Your task to perform on an android device: Go to Yahoo.com Image 0: 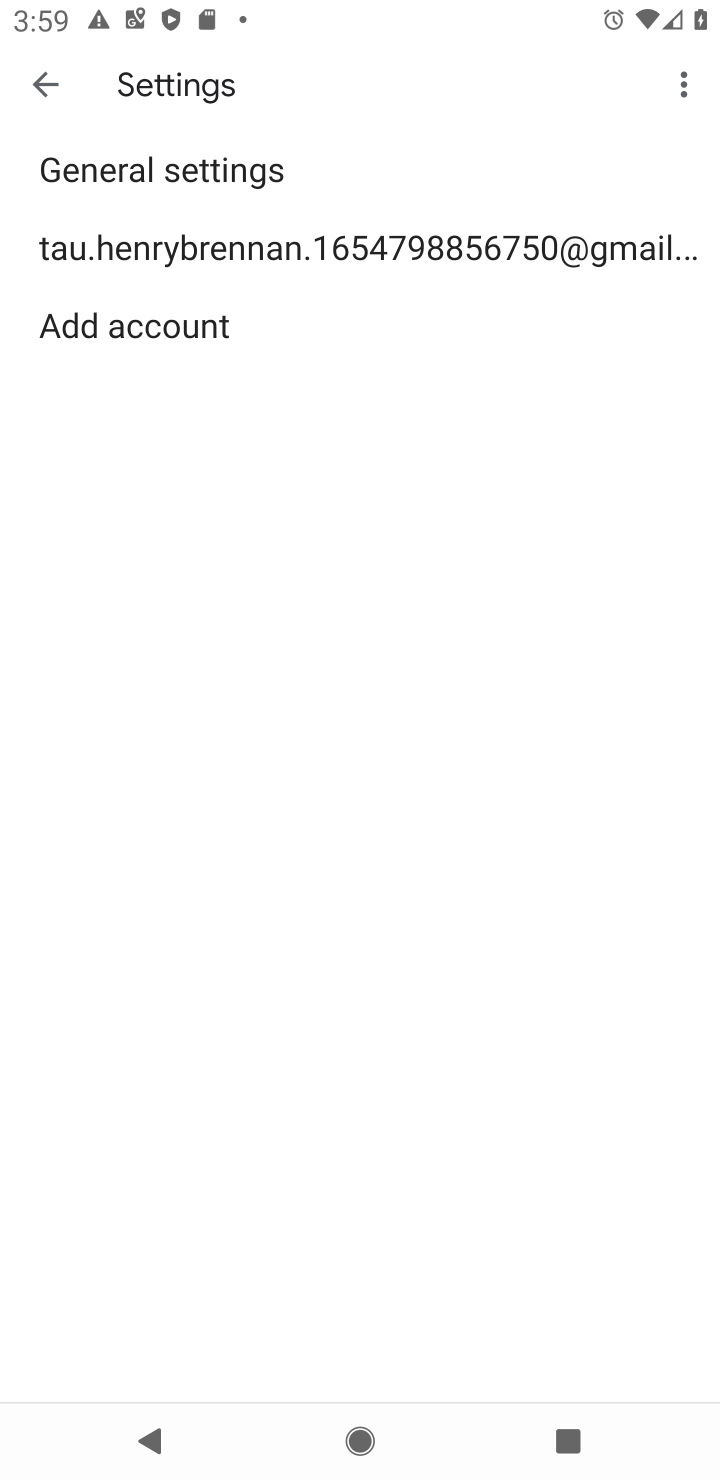
Step 0: press home button
Your task to perform on an android device: Go to Yahoo.com Image 1: 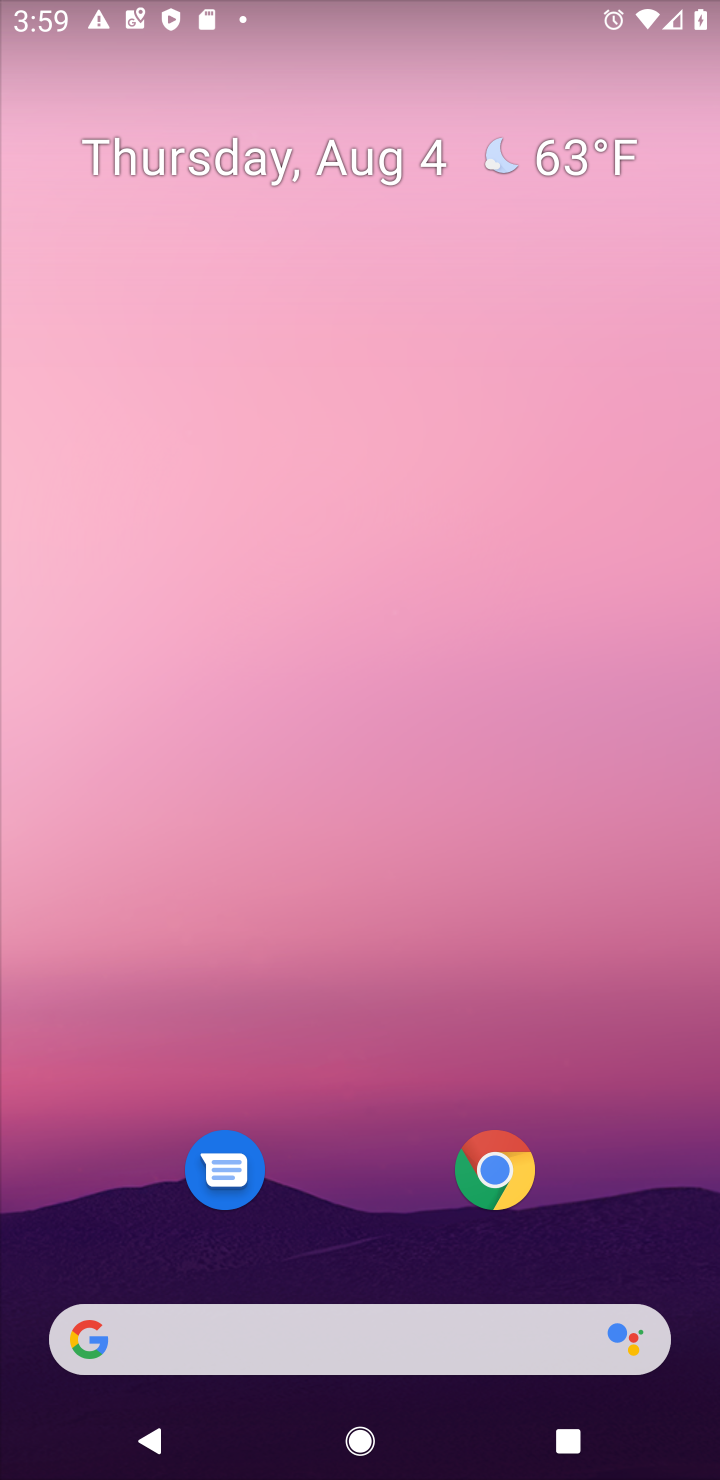
Step 1: click (496, 1172)
Your task to perform on an android device: Go to Yahoo.com Image 2: 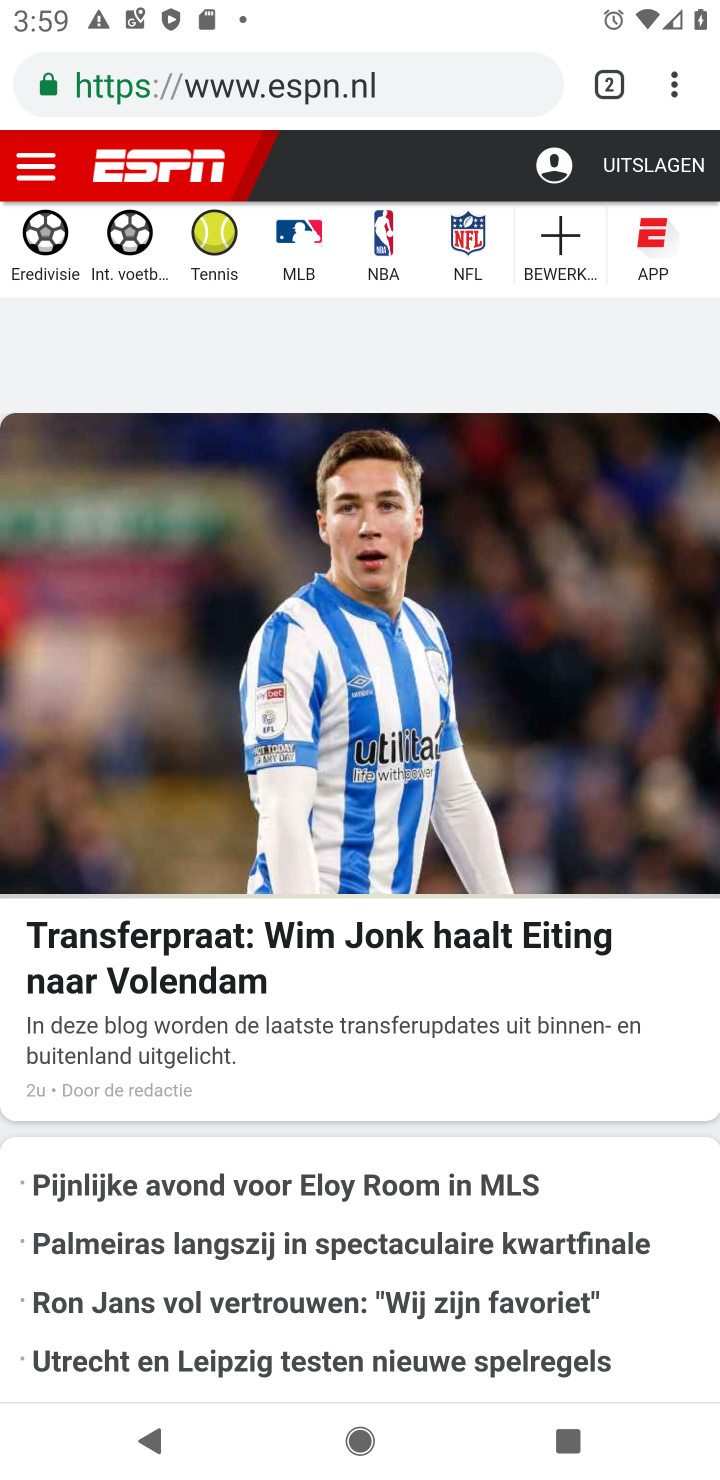
Step 2: click (433, 83)
Your task to perform on an android device: Go to Yahoo.com Image 3: 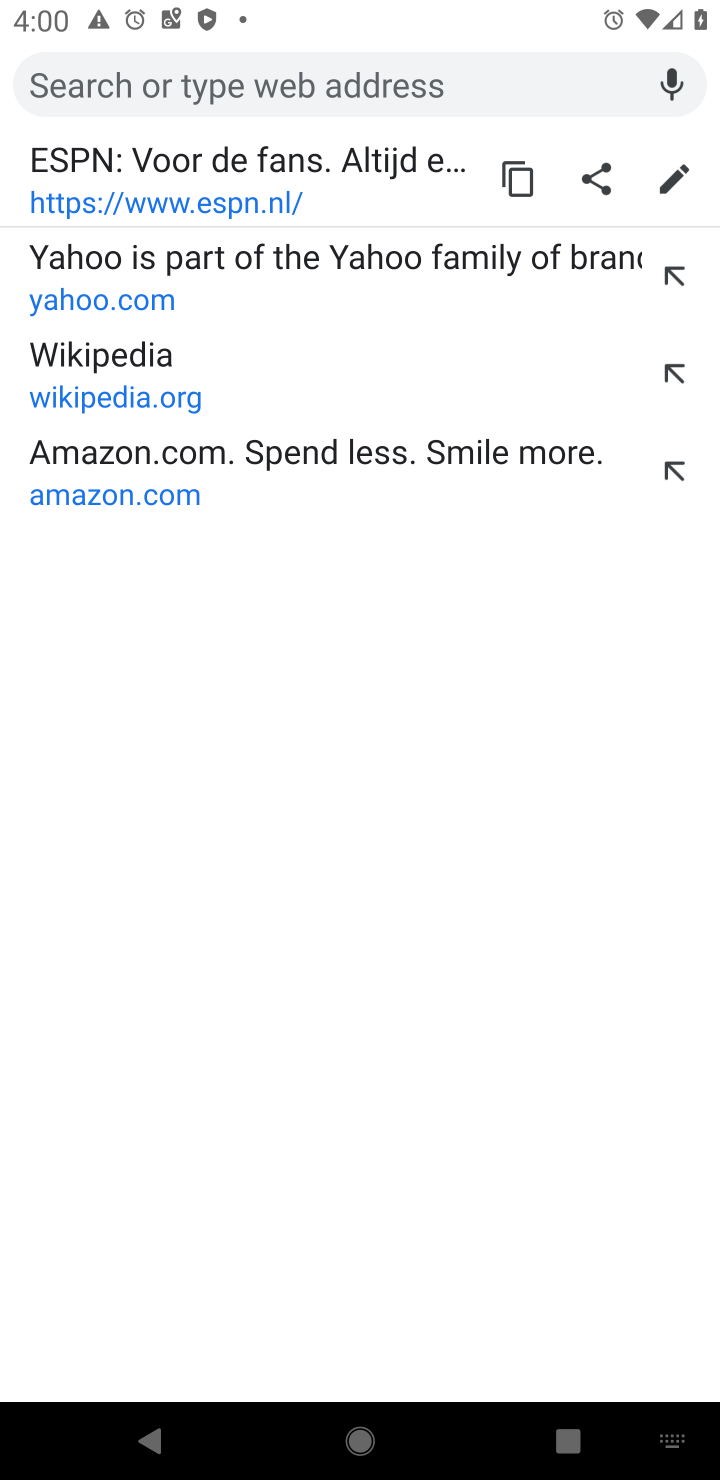
Step 3: type "yahoo.com"
Your task to perform on an android device: Go to Yahoo.com Image 4: 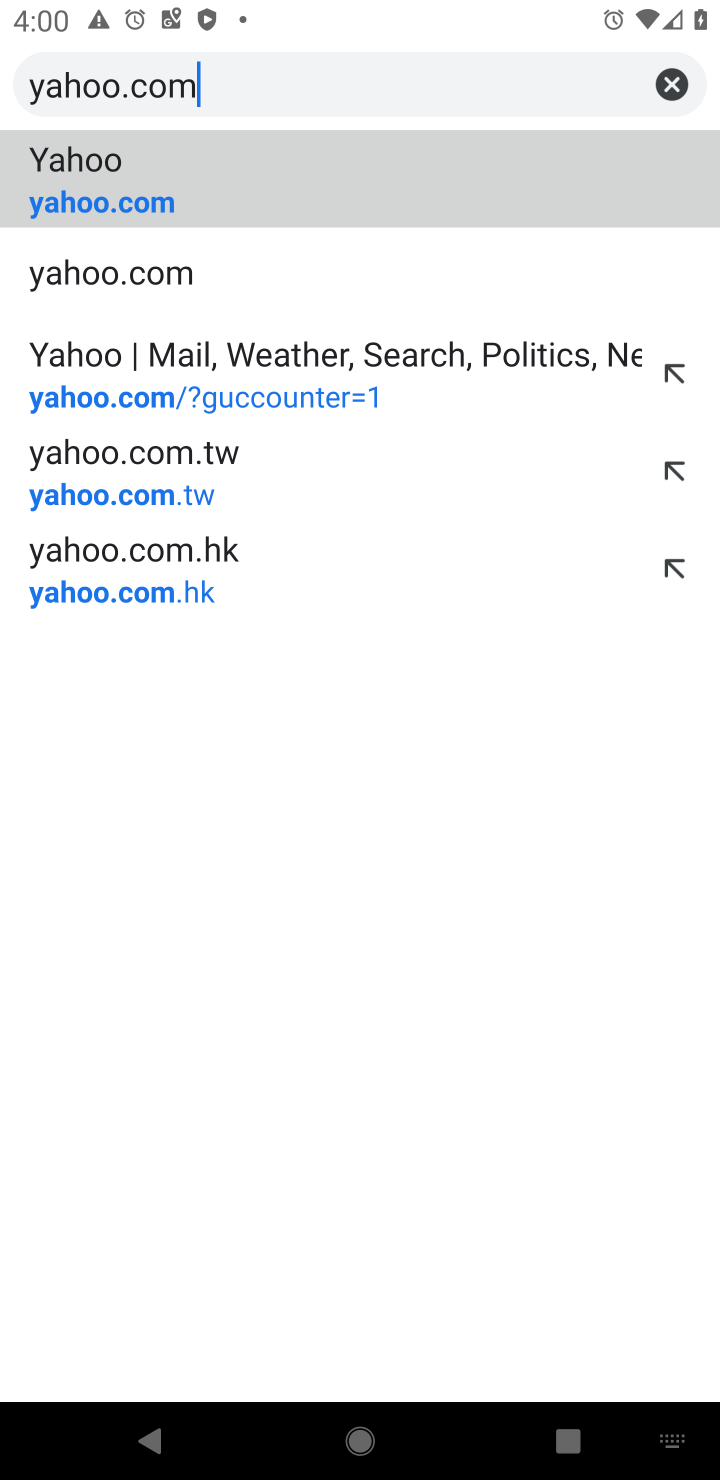
Step 4: click (97, 177)
Your task to perform on an android device: Go to Yahoo.com Image 5: 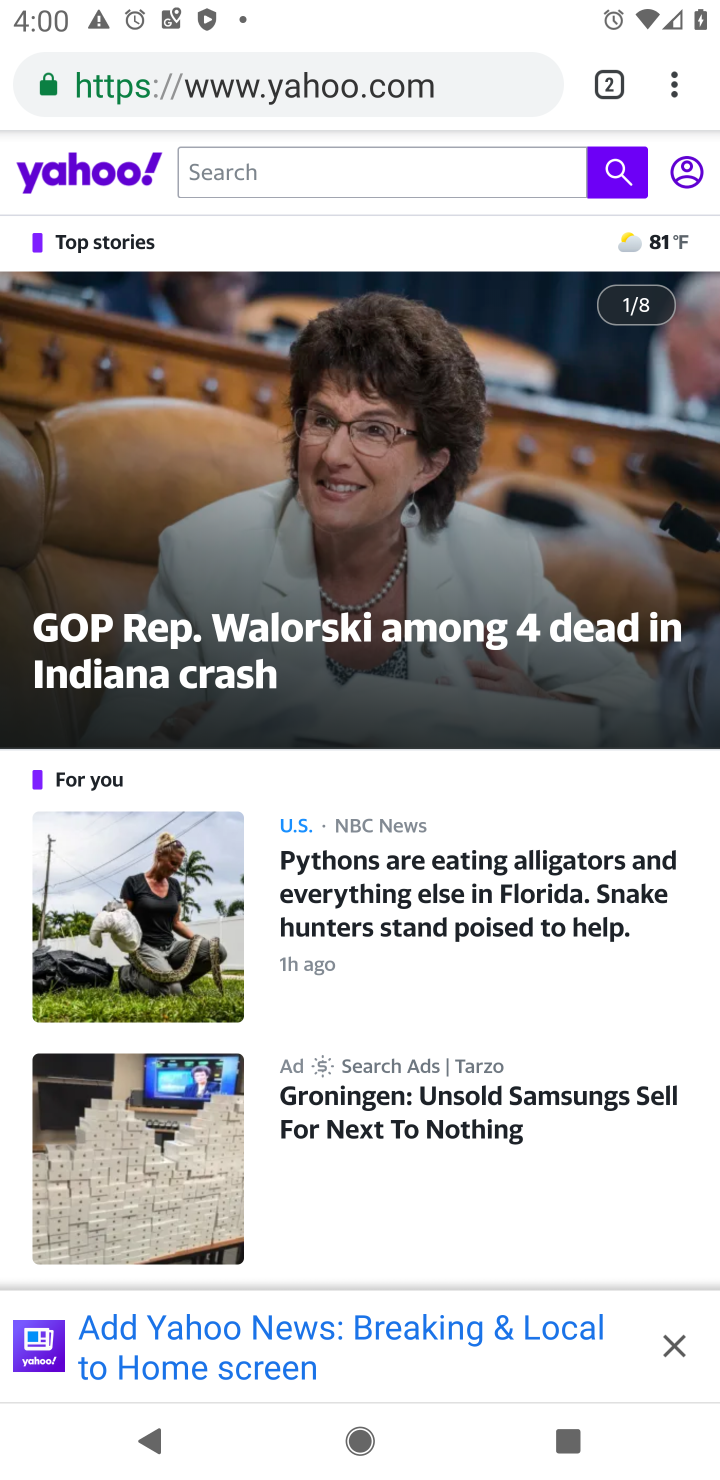
Step 5: task complete